Your task to perform on an android device: empty trash in google photos Image 0: 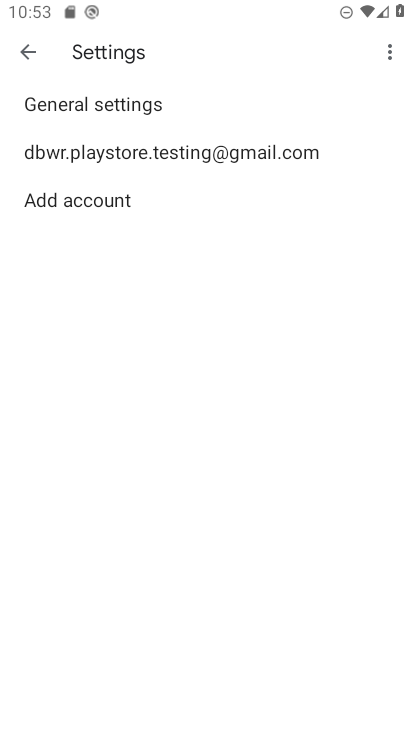
Step 0: press home button
Your task to perform on an android device: empty trash in google photos Image 1: 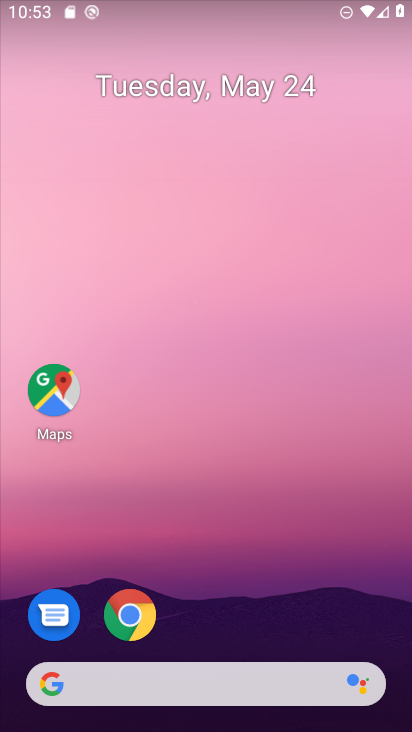
Step 1: drag from (235, 718) to (312, 178)
Your task to perform on an android device: empty trash in google photos Image 2: 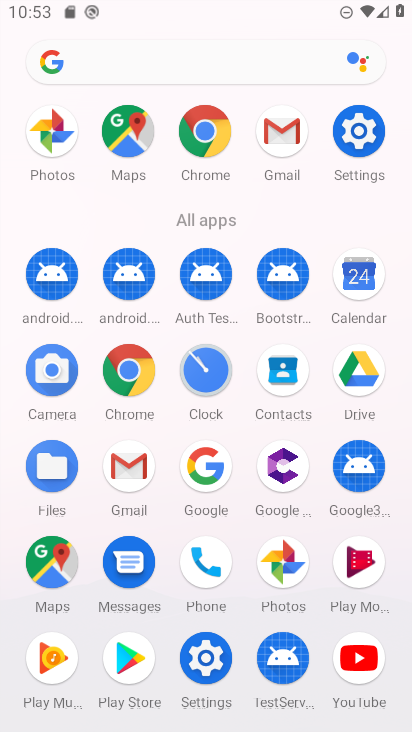
Step 2: click (264, 563)
Your task to perform on an android device: empty trash in google photos Image 3: 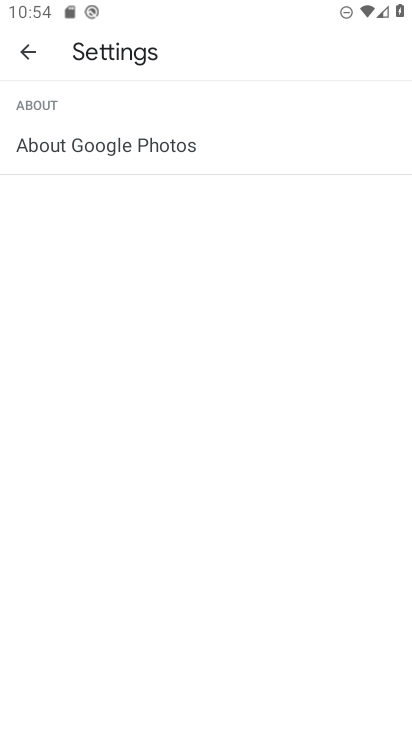
Step 3: click (23, 51)
Your task to perform on an android device: empty trash in google photos Image 4: 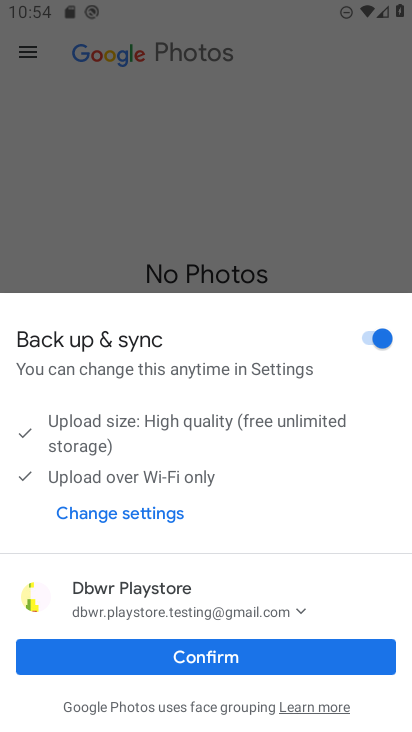
Step 4: click (238, 643)
Your task to perform on an android device: empty trash in google photos Image 5: 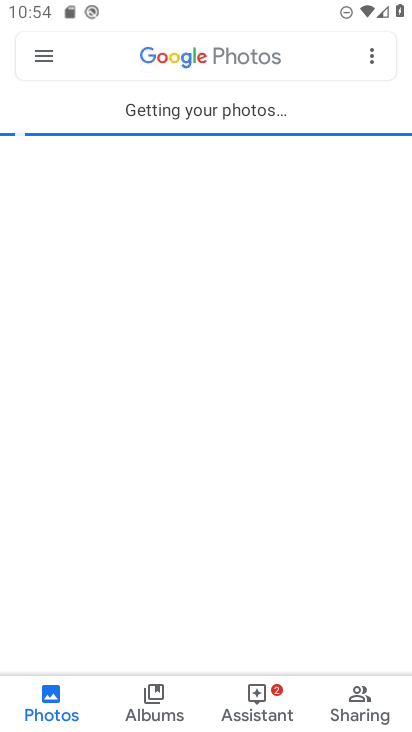
Step 5: click (31, 51)
Your task to perform on an android device: empty trash in google photos Image 6: 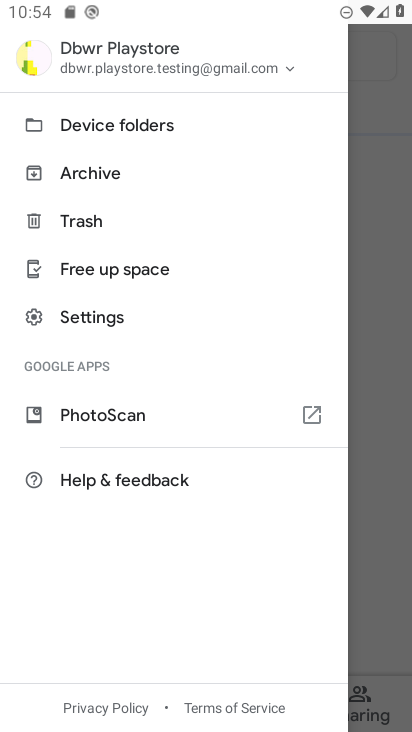
Step 6: click (110, 224)
Your task to perform on an android device: empty trash in google photos Image 7: 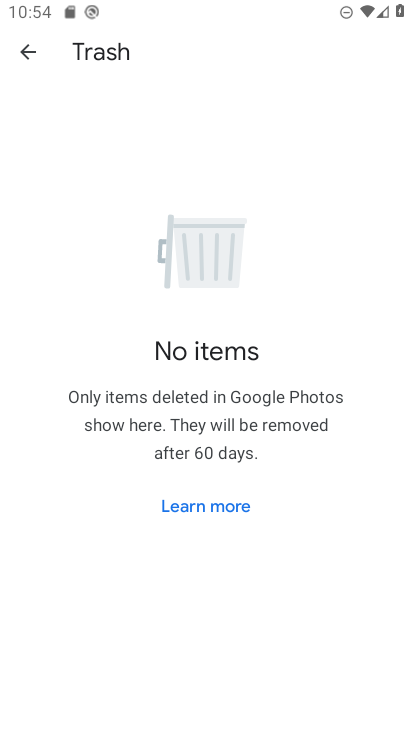
Step 7: task complete